Your task to perform on an android device: Go to accessibility settings Image 0: 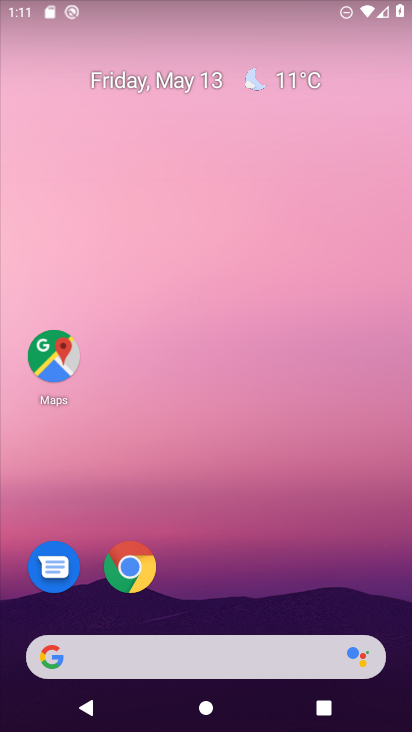
Step 0: drag from (216, 612) to (223, 60)
Your task to perform on an android device: Go to accessibility settings Image 1: 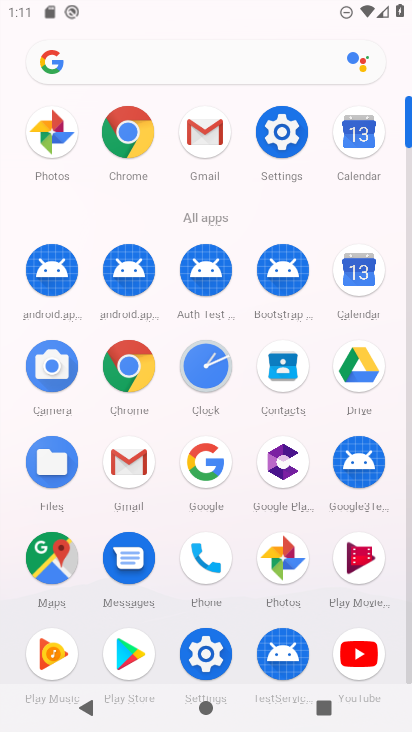
Step 1: click (280, 122)
Your task to perform on an android device: Go to accessibility settings Image 2: 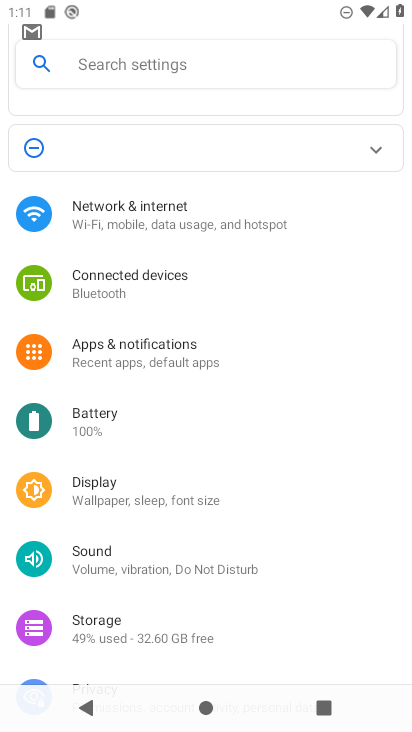
Step 2: drag from (178, 616) to (180, 112)
Your task to perform on an android device: Go to accessibility settings Image 3: 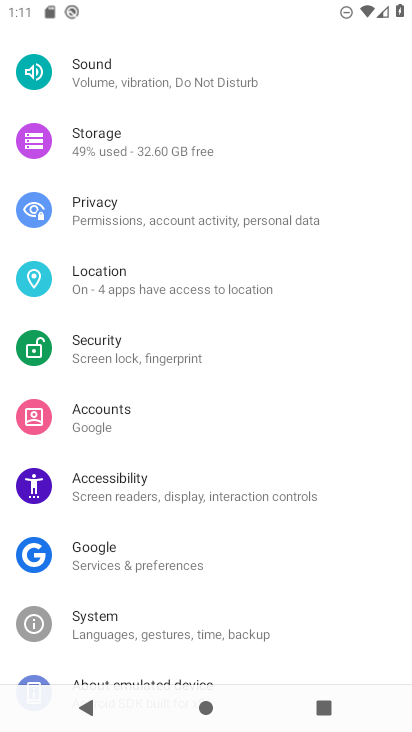
Step 3: click (141, 481)
Your task to perform on an android device: Go to accessibility settings Image 4: 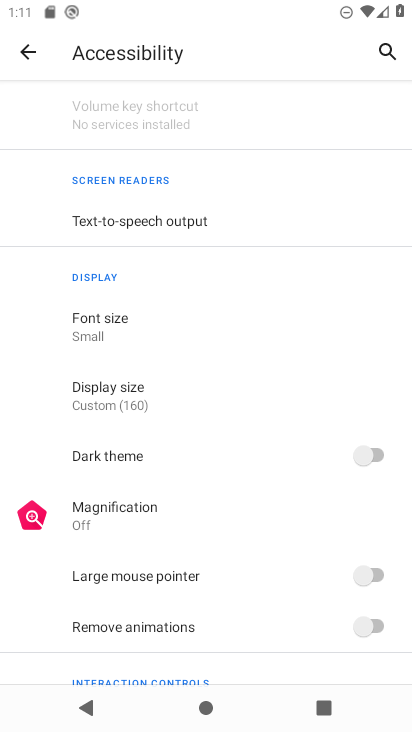
Step 4: task complete